Your task to perform on an android device: check data usage Image 0: 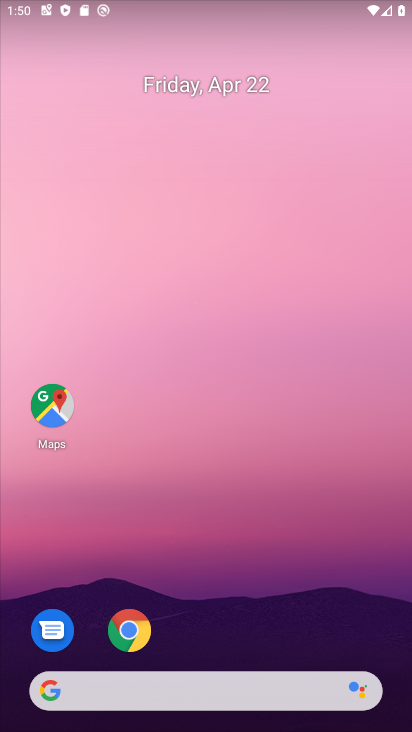
Step 0: drag from (358, 594) to (350, 148)
Your task to perform on an android device: check data usage Image 1: 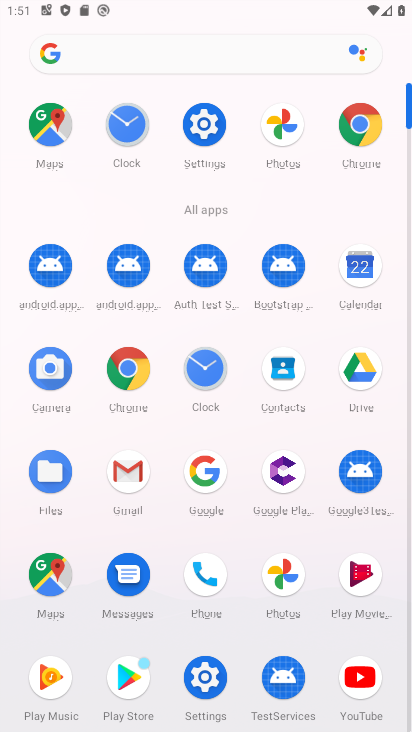
Step 1: click (217, 678)
Your task to perform on an android device: check data usage Image 2: 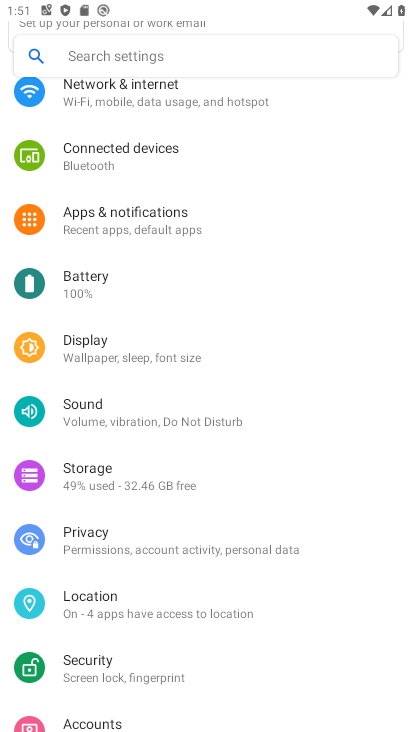
Step 2: click (167, 99)
Your task to perform on an android device: check data usage Image 3: 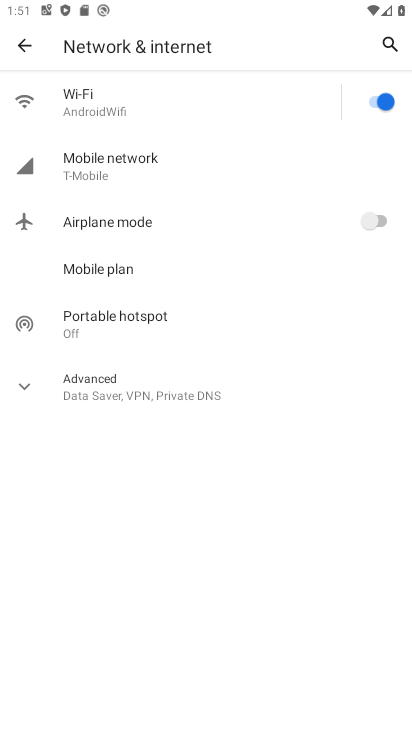
Step 3: click (148, 170)
Your task to perform on an android device: check data usage Image 4: 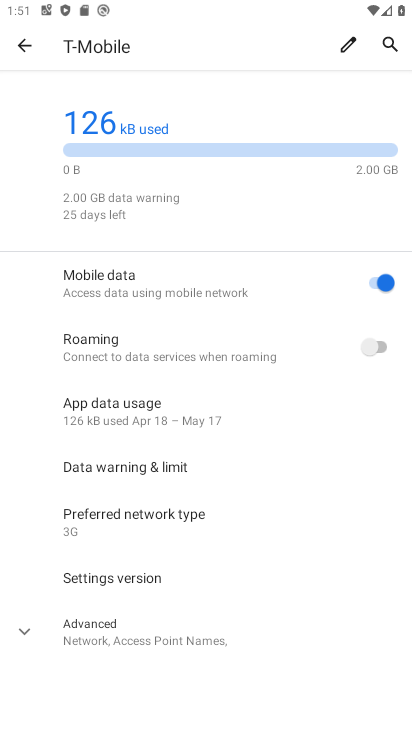
Step 4: click (86, 413)
Your task to perform on an android device: check data usage Image 5: 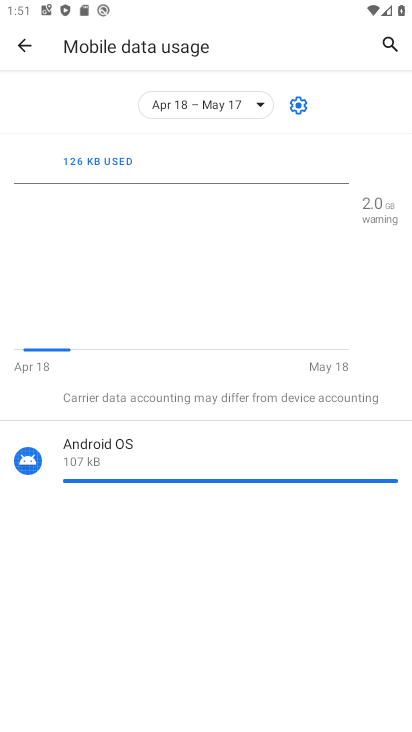
Step 5: task complete